Your task to perform on an android device: Go to ESPN.com Image 0: 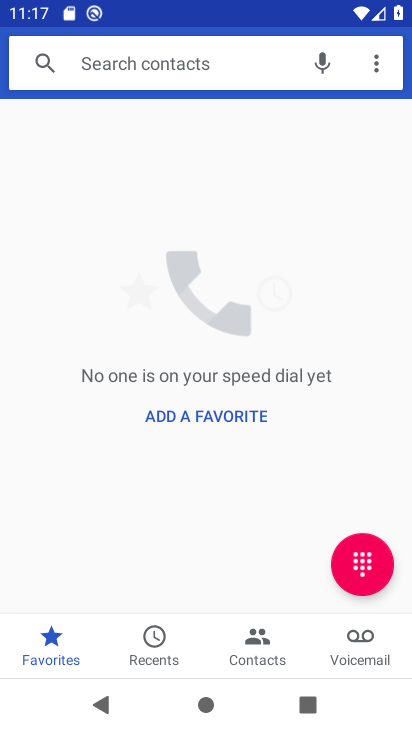
Step 0: press home button
Your task to perform on an android device: Go to ESPN.com Image 1: 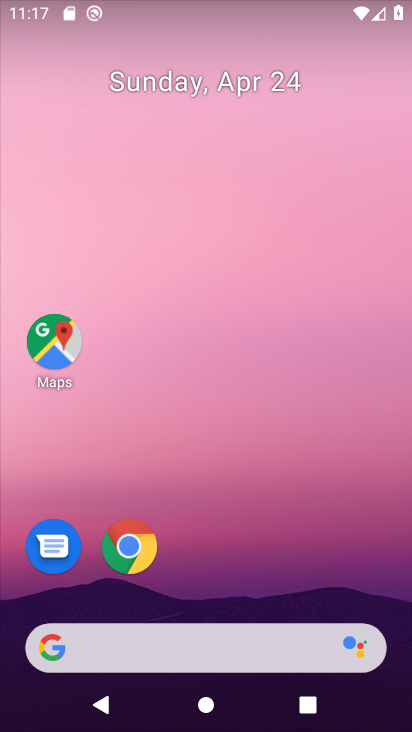
Step 1: click (129, 571)
Your task to perform on an android device: Go to ESPN.com Image 2: 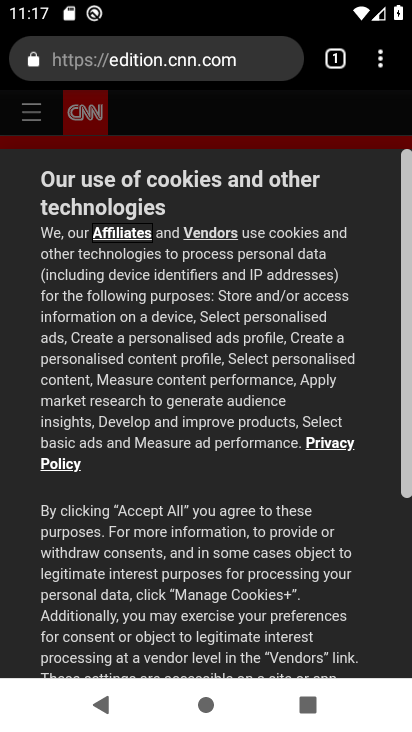
Step 2: click (376, 61)
Your task to perform on an android device: Go to ESPN.com Image 3: 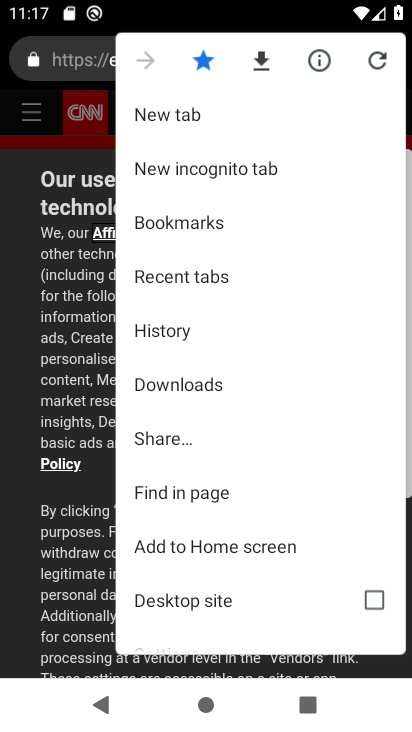
Step 3: click (201, 119)
Your task to perform on an android device: Go to ESPN.com Image 4: 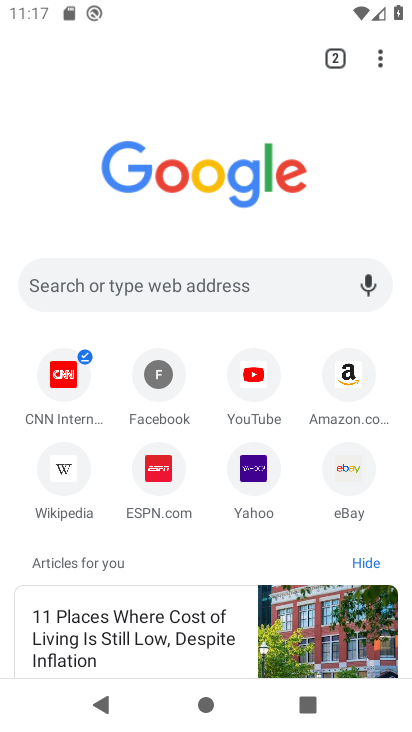
Step 4: click (159, 468)
Your task to perform on an android device: Go to ESPN.com Image 5: 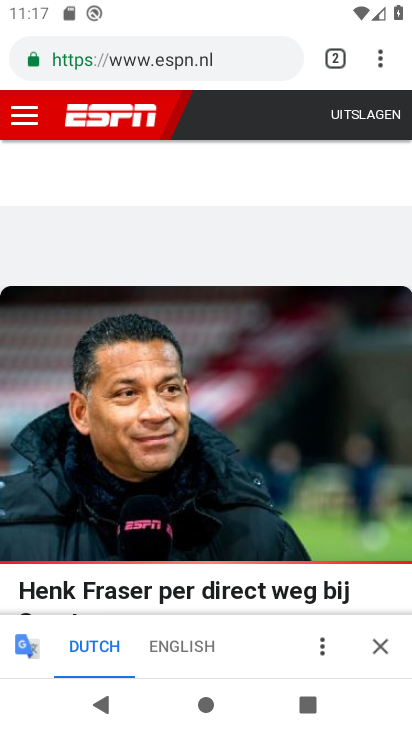
Step 5: task complete